Your task to perform on an android device: check the backup settings in the google photos Image 0: 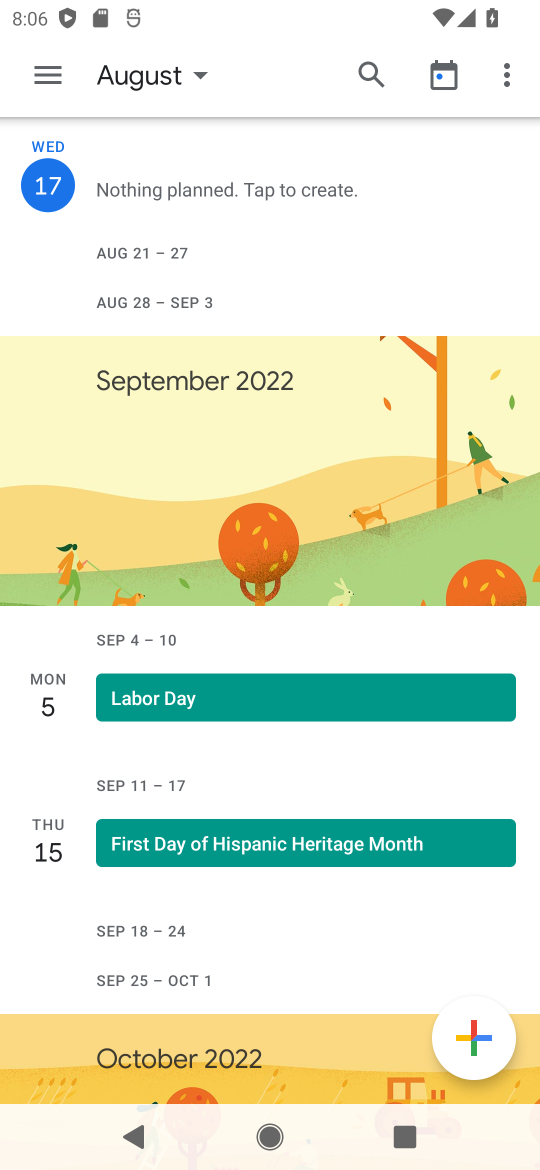
Step 0: press home button
Your task to perform on an android device: check the backup settings in the google photos Image 1: 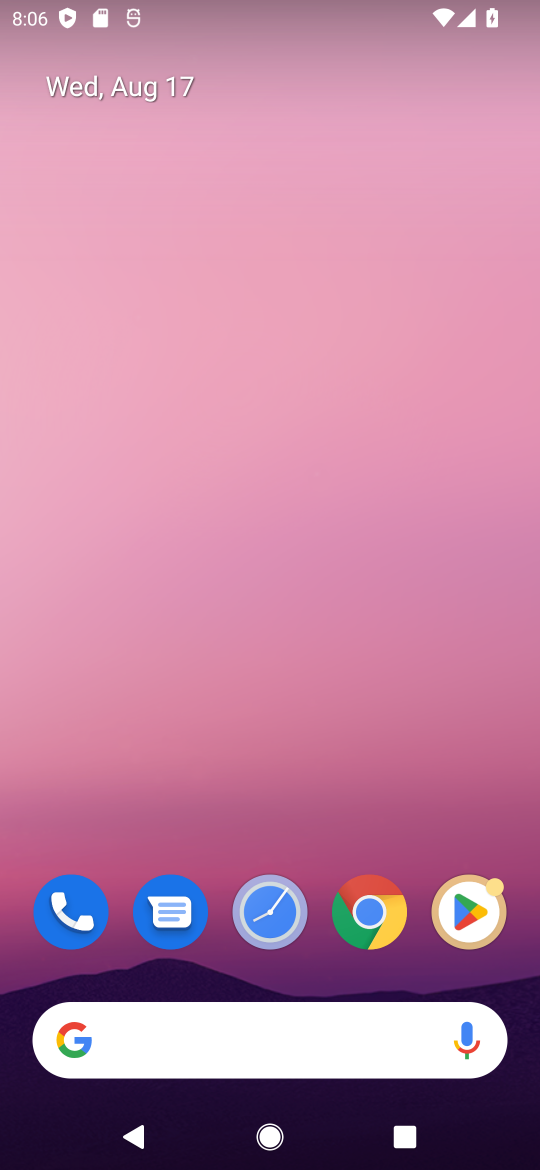
Step 1: drag from (211, 998) to (174, 339)
Your task to perform on an android device: check the backup settings in the google photos Image 2: 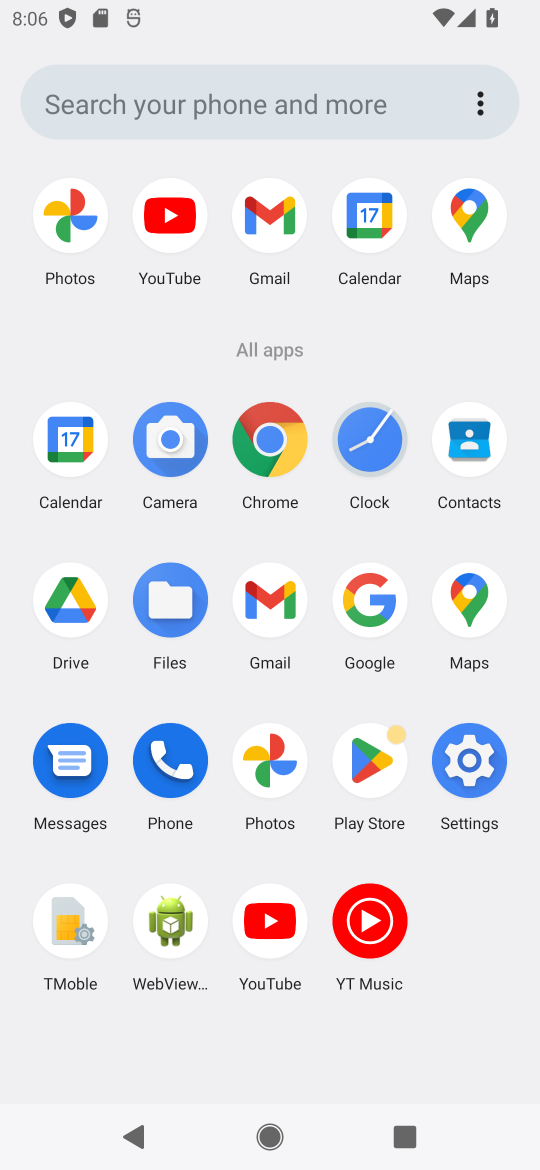
Step 2: click (261, 776)
Your task to perform on an android device: check the backup settings in the google photos Image 3: 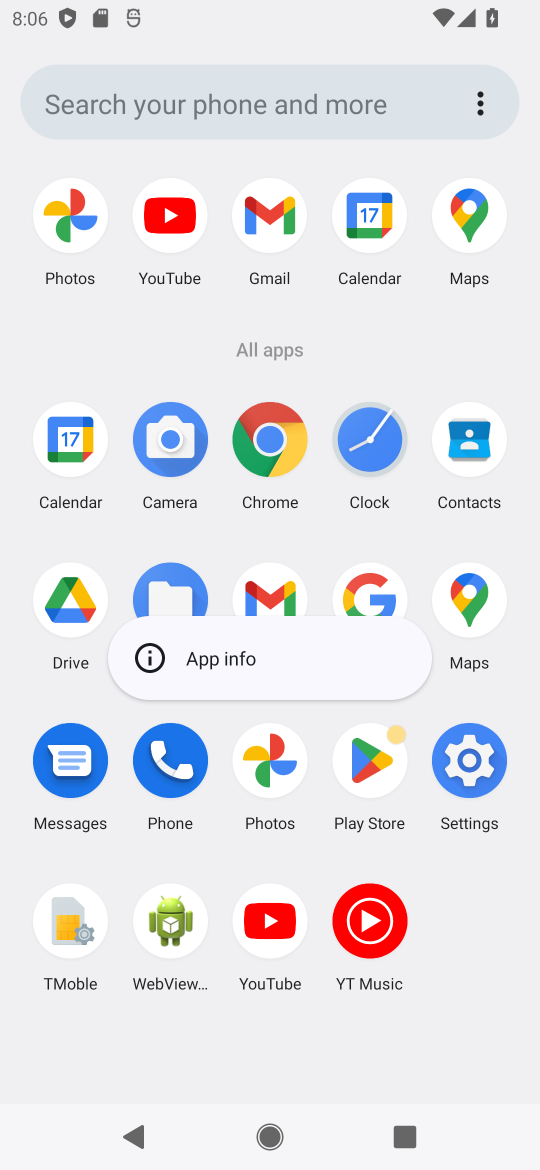
Step 3: click (260, 750)
Your task to perform on an android device: check the backup settings in the google photos Image 4: 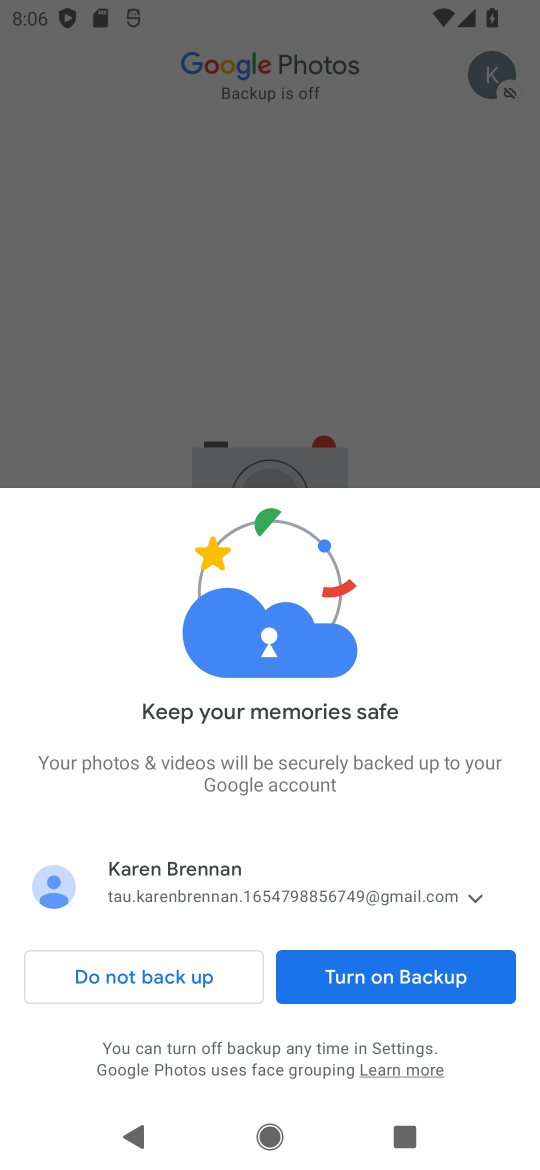
Step 4: click (393, 985)
Your task to perform on an android device: check the backup settings in the google photos Image 5: 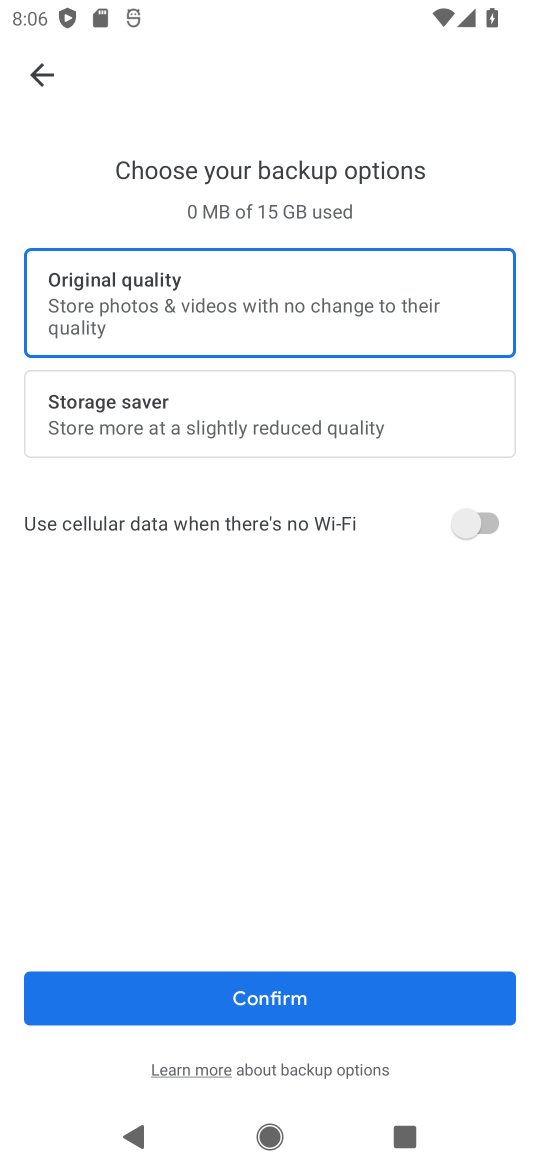
Step 5: click (288, 1003)
Your task to perform on an android device: check the backup settings in the google photos Image 6: 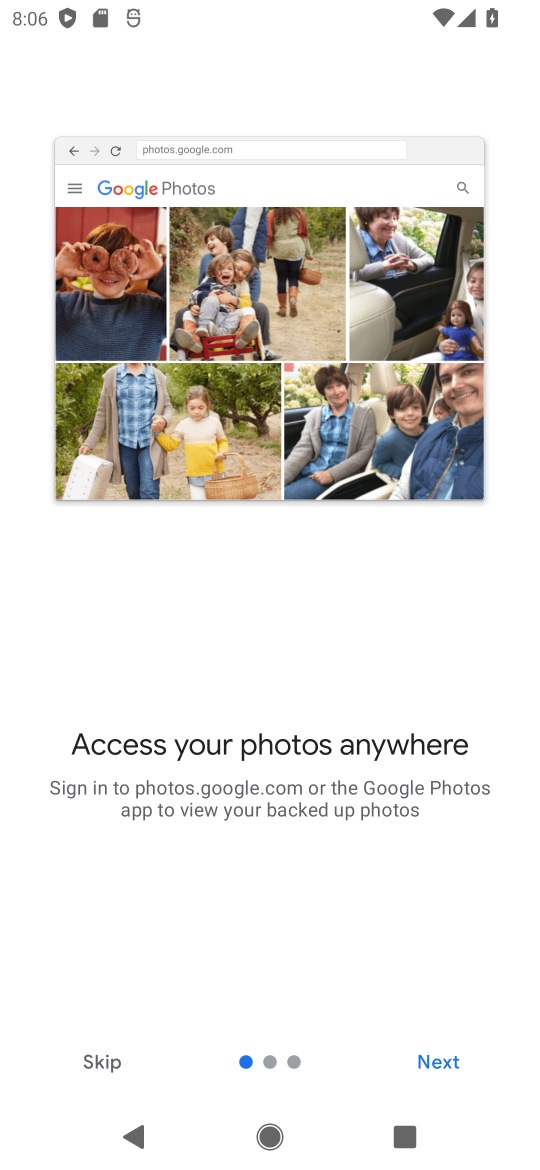
Step 6: click (421, 1065)
Your task to perform on an android device: check the backup settings in the google photos Image 7: 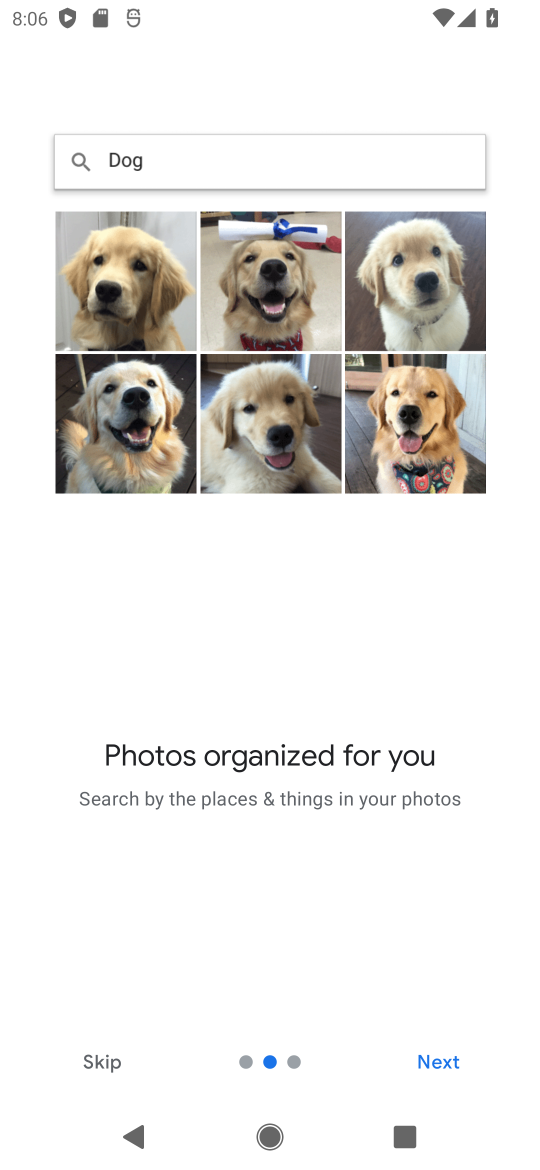
Step 7: click (427, 1054)
Your task to perform on an android device: check the backup settings in the google photos Image 8: 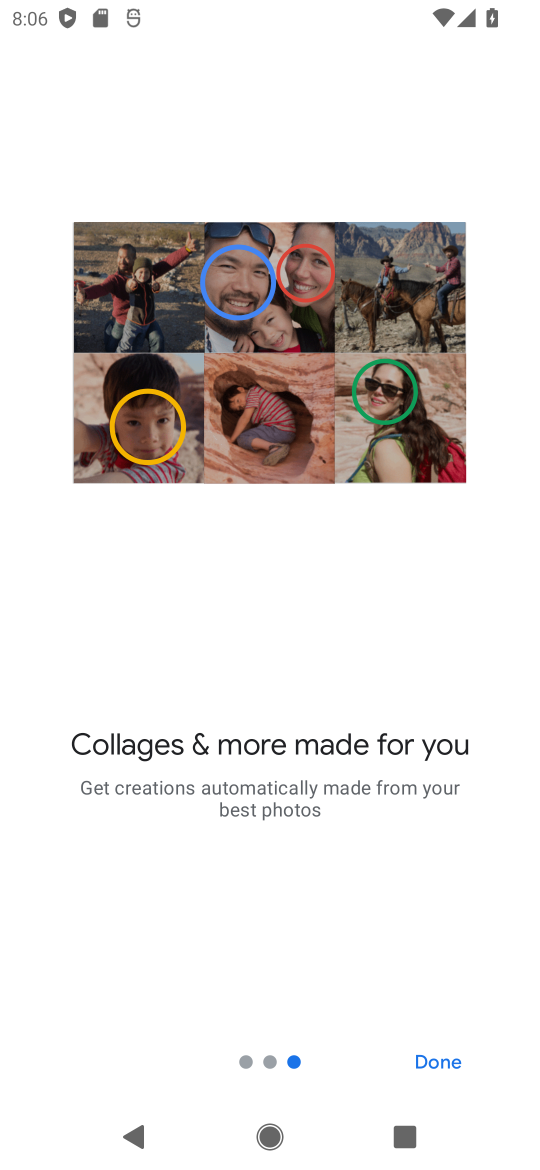
Step 8: click (427, 1055)
Your task to perform on an android device: check the backup settings in the google photos Image 9: 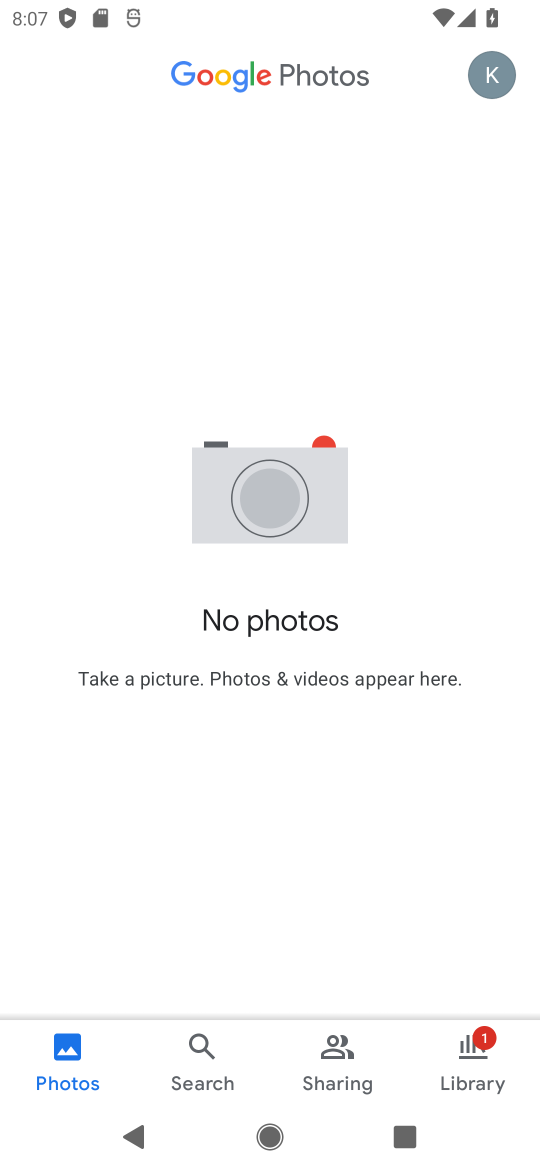
Step 9: task complete